Your task to perform on an android device: turn off airplane mode Image 0: 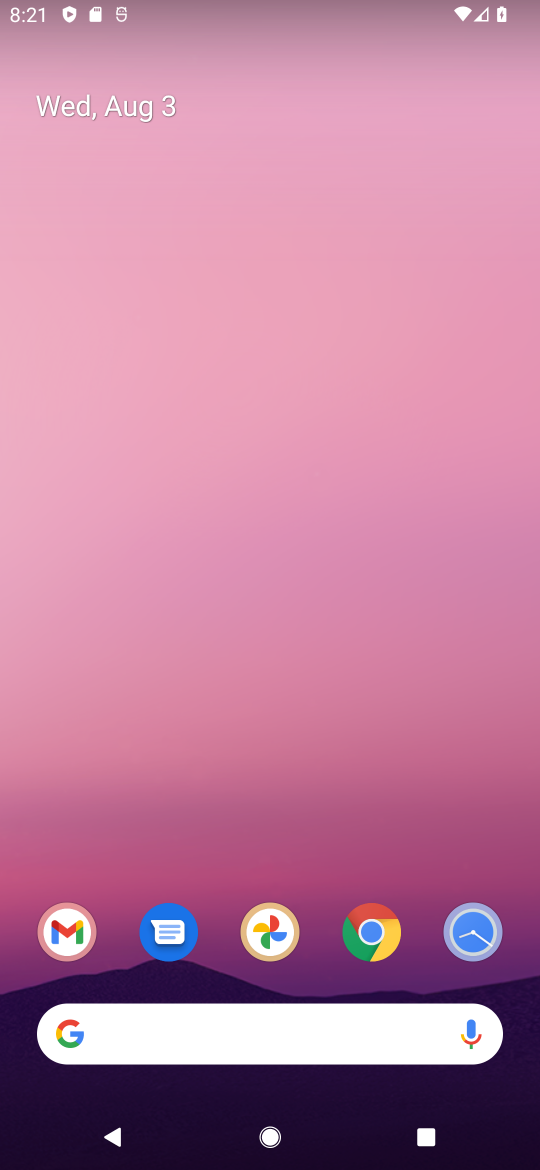
Step 0: drag from (259, 1006) to (281, 423)
Your task to perform on an android device: turn off airplane mode Image 1: 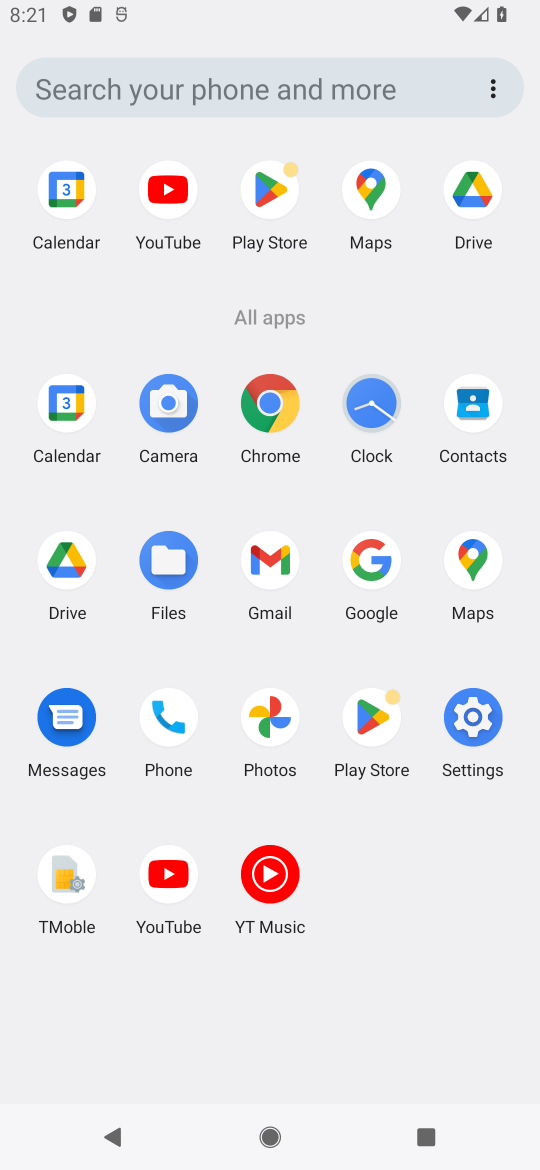
Step 1: click (465, 725)
Your task to perform on an android device: turn off airplane mode Image 2: 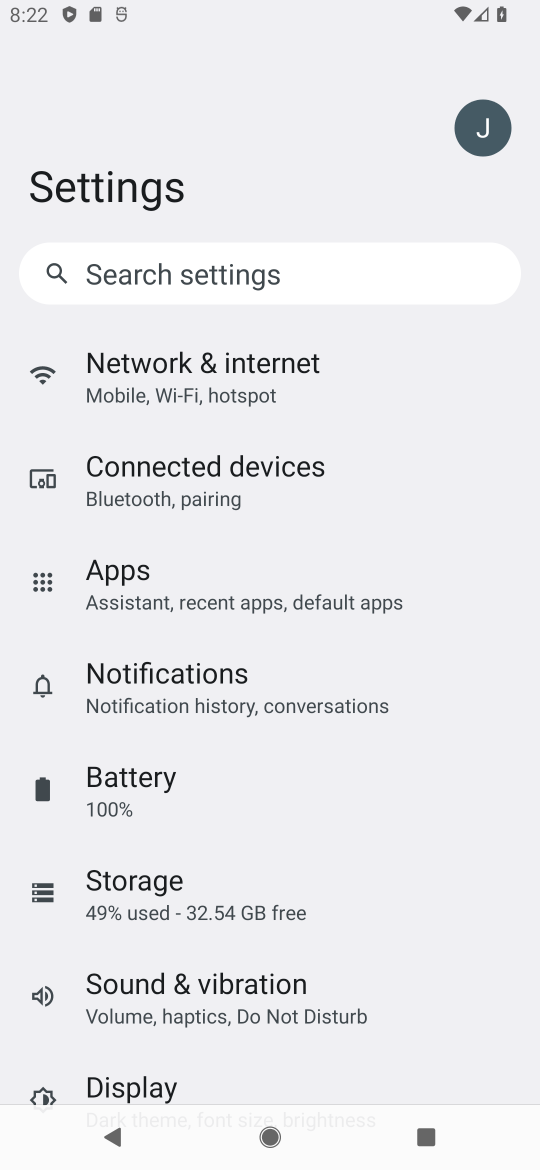
Step 2: click (275, 374)
Your task to perform on an android device: turn off airplane mode Image 3: 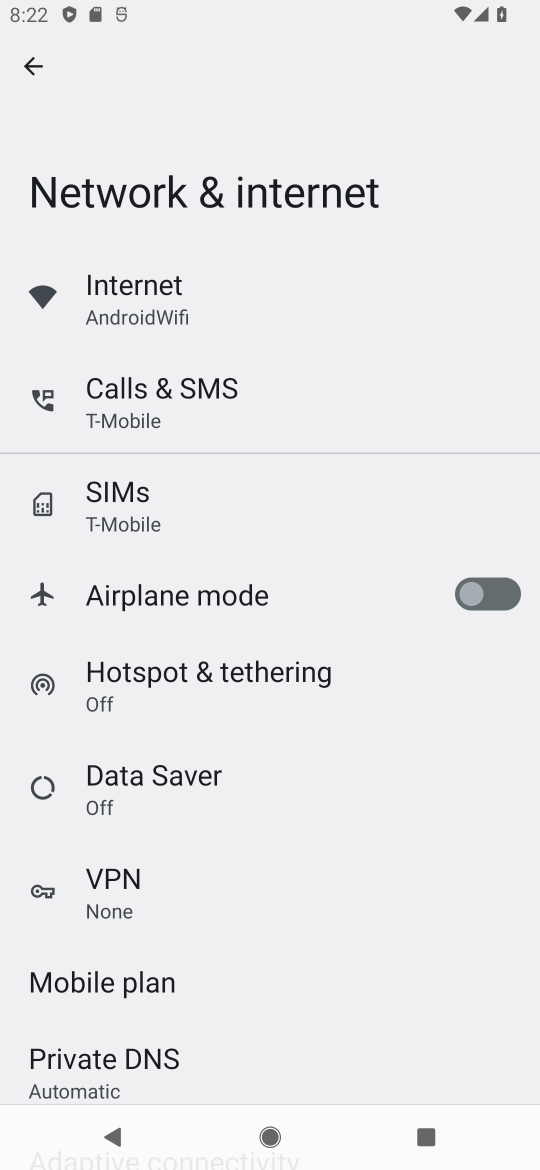
Step 3: task complete